Your task to perform on an android device: turn off priority inbox in the gmail app Image 0: 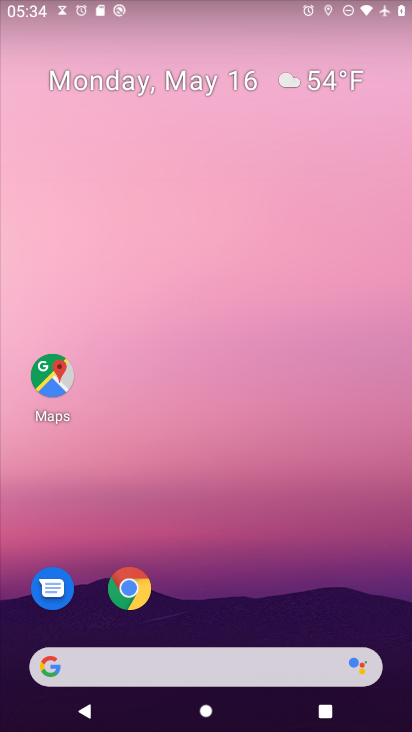
Step 0: drag from (197, 502) to (217, 16)
Your task to perform on an android device: turn off priority inbox in the gmail app Image 1: 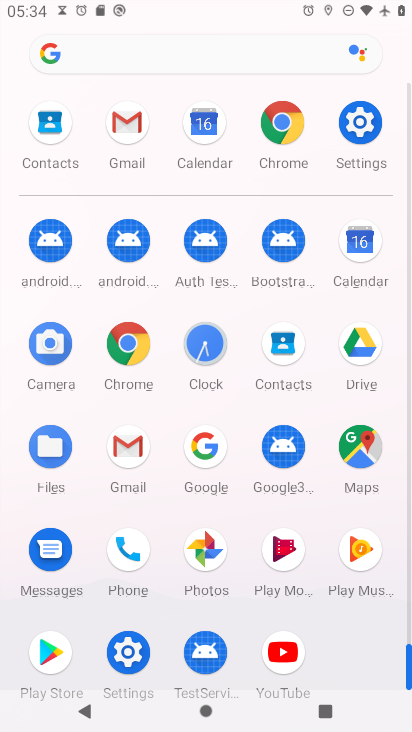
Step 1: drag from (1, 562) to (20, 206)
Your task to perform on an android device: turn off priority inbox in the gmail app Image 2: 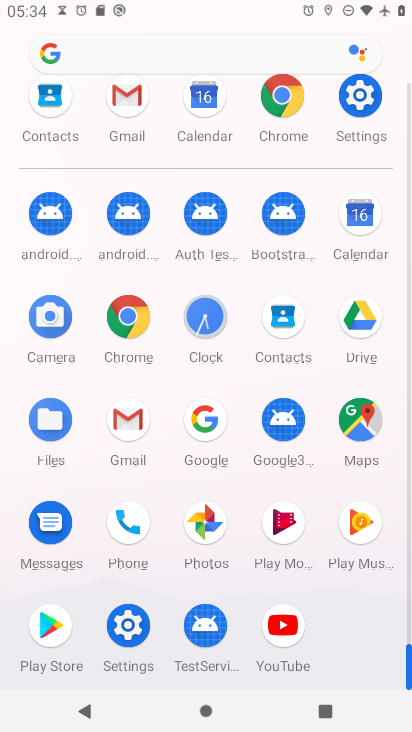
Step 2: click (126, 413)
Your task to perform on an android device: turn off priority inbox in the gmail app Image 3: 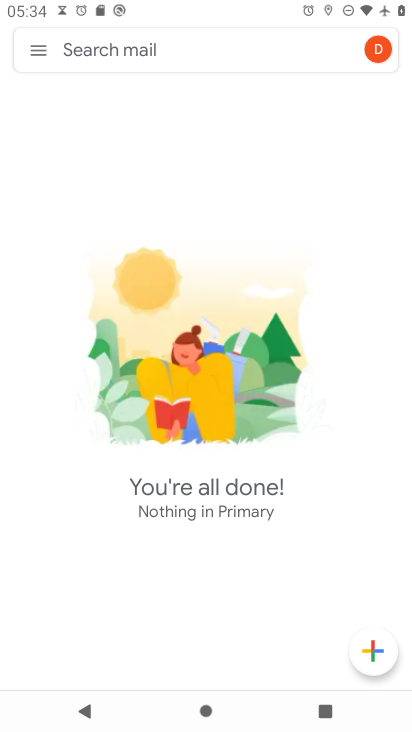
Step 3: click (37, 47)
Your task to perform on an android device: turn off priority inbox in the gmail app Image 4: 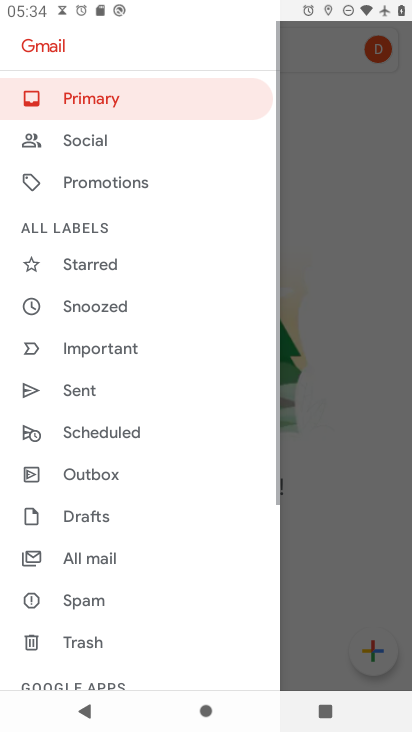
Step 4: drag from (131, 651) to (162, 142)
Your task to perform on an android device: turn off priority inbox in the gmail app Image 5: 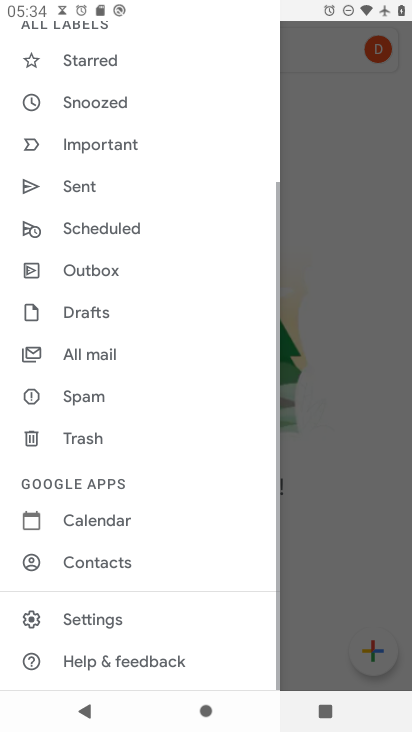
Step 5: click (88, 611)
Your task to perform on an android device: turn off priority inbox in the gmail app Image 6: 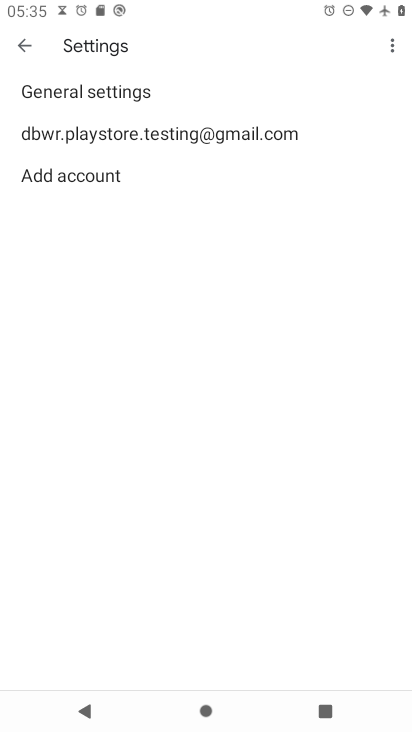
Step 6: click (234, 139)
Your task to perform on an android device: turn off priority inbox in the gmail app Image 7: 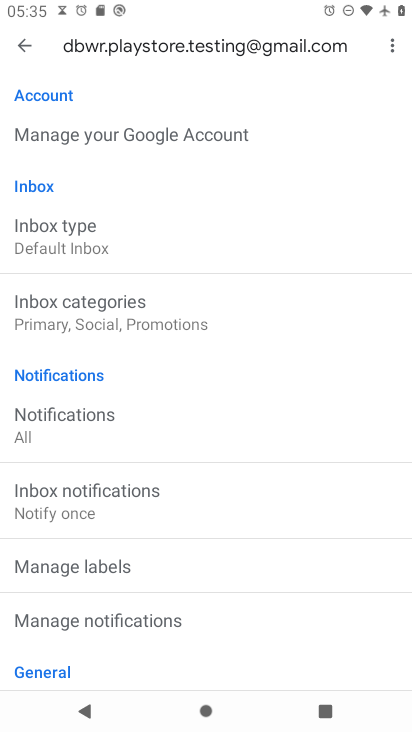
Step 7: click (128, 252)
Your task to perform on an android device: turn off priority inbox in the gmail app Image 8: 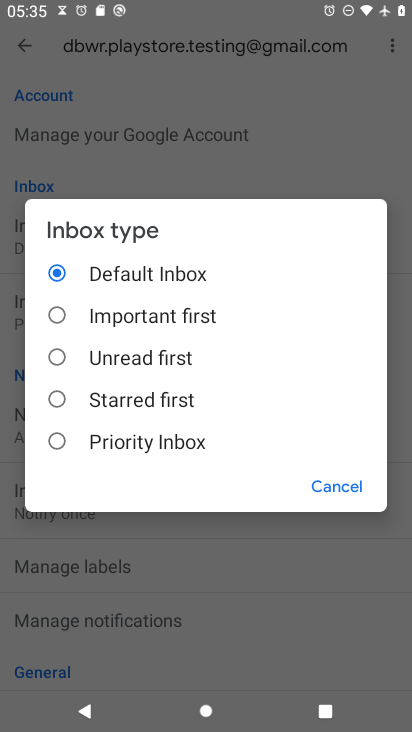
Step 8: click (123, 278)
Your task to perform on an android device: turn off priority inbox in the gmail app Image 9: 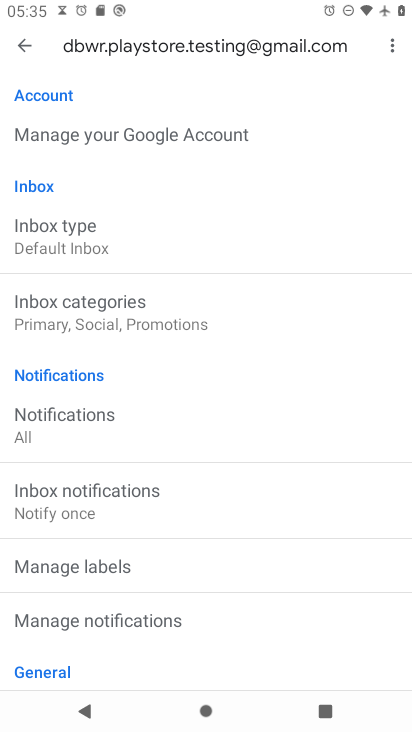
Step 9: task complete